Your task to perform on an android device: snooze an email in the gmail app Image 0: 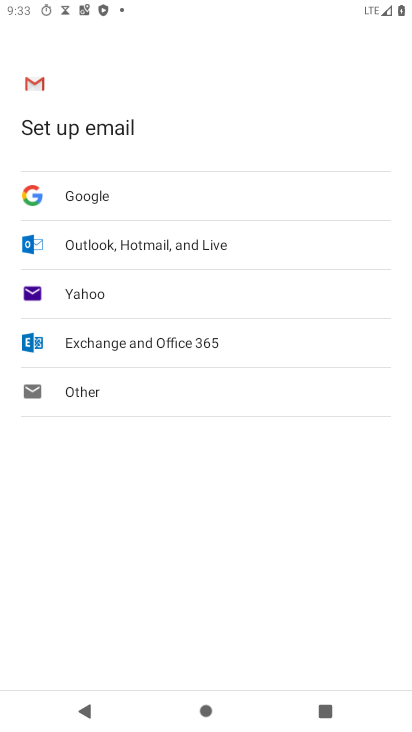
Step 0: press back button
Your task to perform on an android device: snooze an email in the gmail app Image 1: 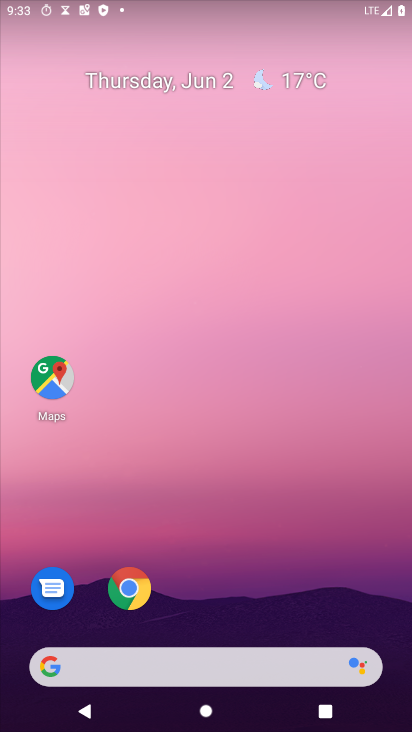
Step 1: drag from (216, 567) to (210, 102)
Your task to perform on an android device: snooze an email in the gmail app Image 2: 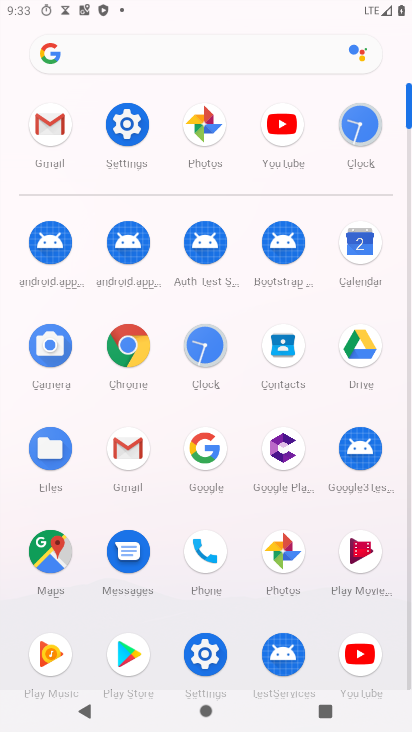
Step 2: click (48, 129)
Your task to perform on an android device: snooze an email in the gmail app Image 3: 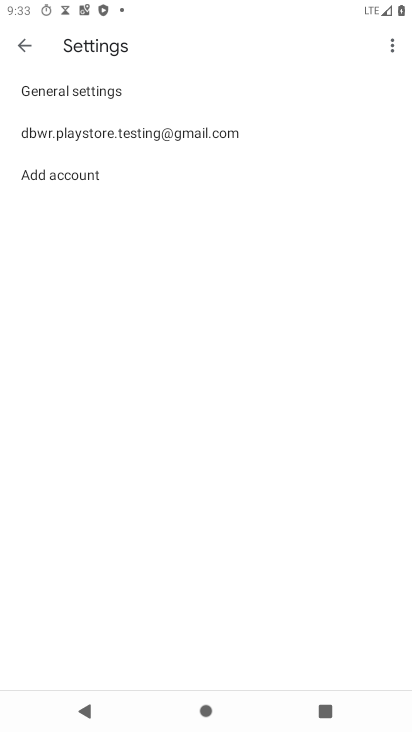
Step 3: click (26, 36)
Your task to perform on an android device: snooze an email in the gmail app Image 4: 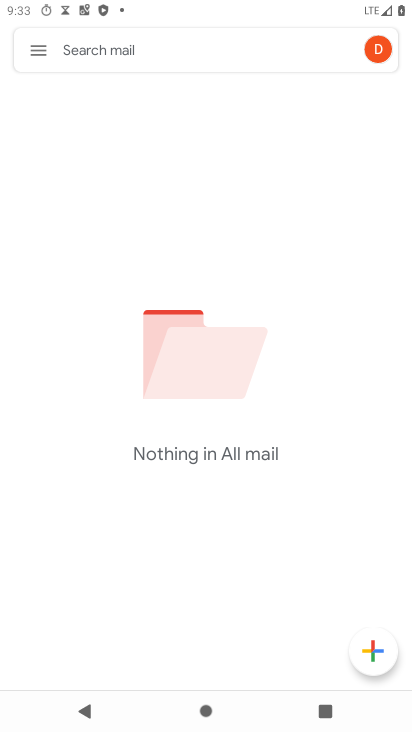
Step 4: task complete